Your task to perform on an android device: check out phone information Image 0: 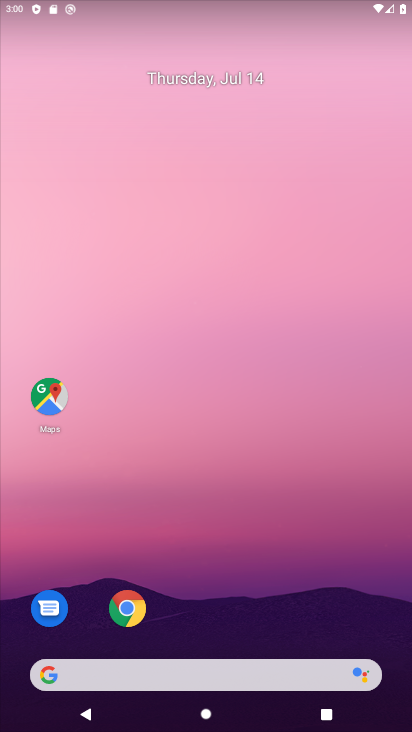
Step 0: drag from (209, 670) to (164, 176)
Your task to perform on an android device: check out phone information Image 1: 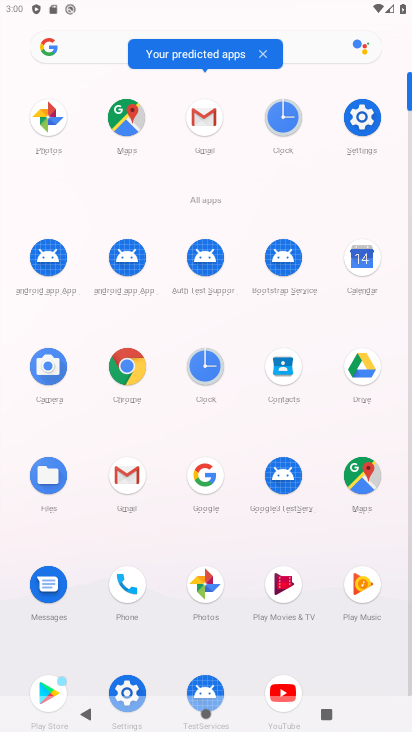
Step 1: click (356, 131)
Your task to perform on an android device: check out phone information Image 2: 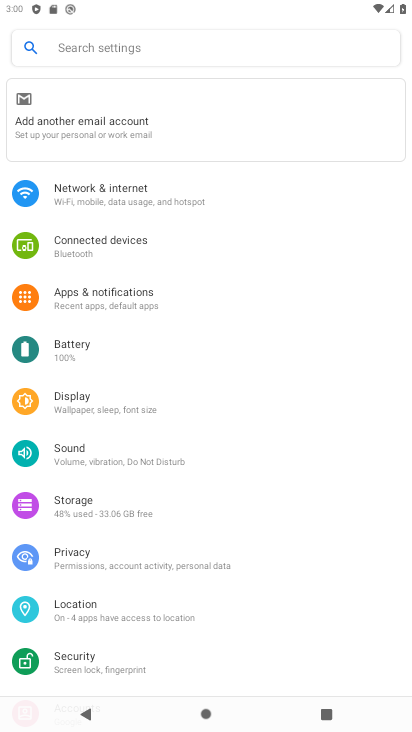
Step 2: drag from (147, 649) to (88, 184)
Your task to perform on an android device: check out phone information Image 3: 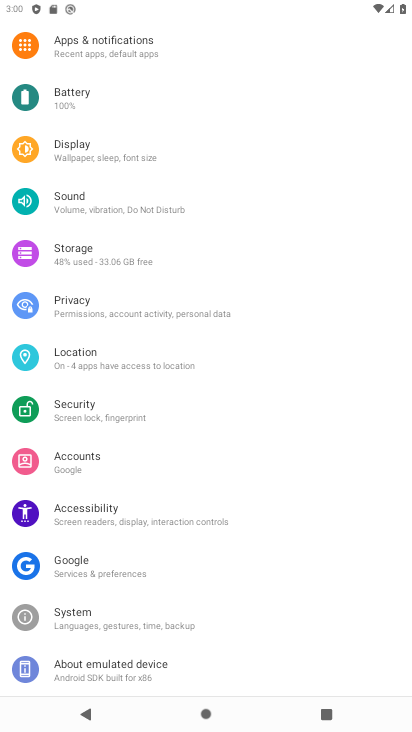
Step 3: click (115, 665)
Your task to perform on an android device: check out phone information Image 4: 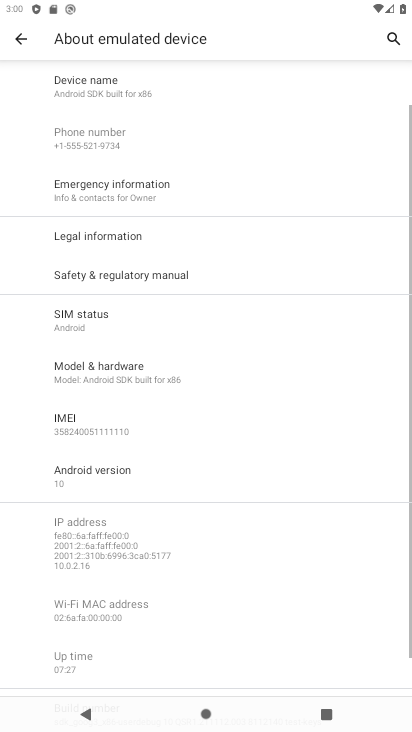
Step 4: task complete